Your task to perform on an android device: Go to Android settings Image 0: 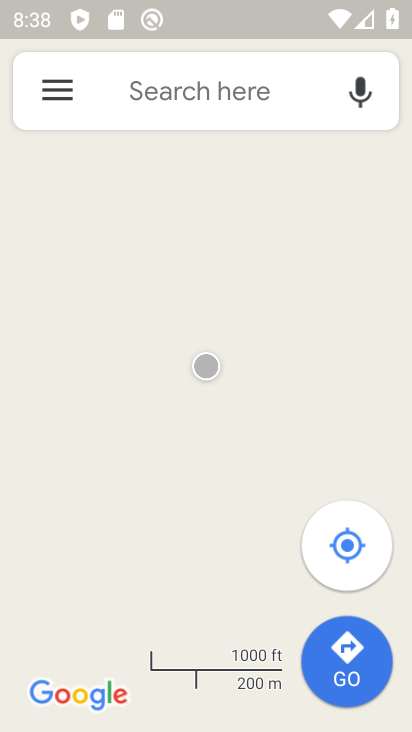
Step 0: press home button
Your task to perform on an android device: Go to Android settings Image 1: 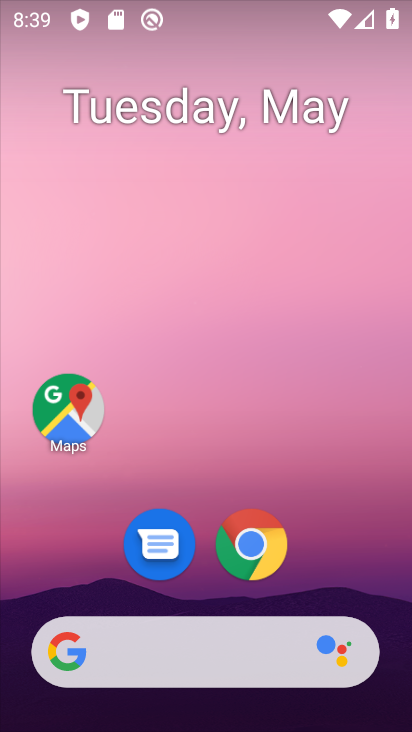
Step 1: drag from (322, 543) to (324, 182)
Your task to perform on an android device: Go to Android settings Image 2: 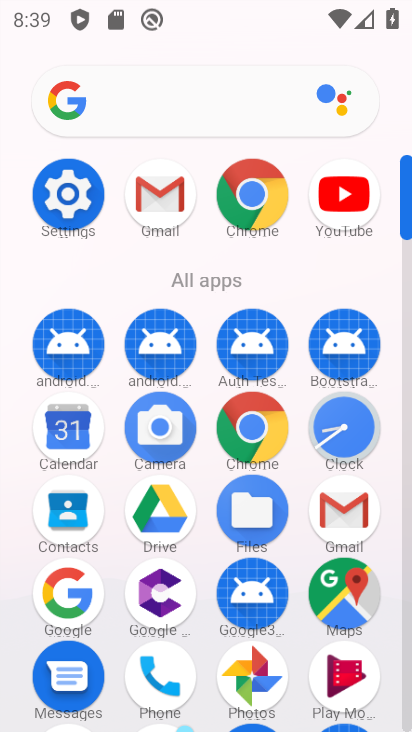
Step 2: click (48, 210)
Your task to perform on an android device: Go to Android settings Image 3: 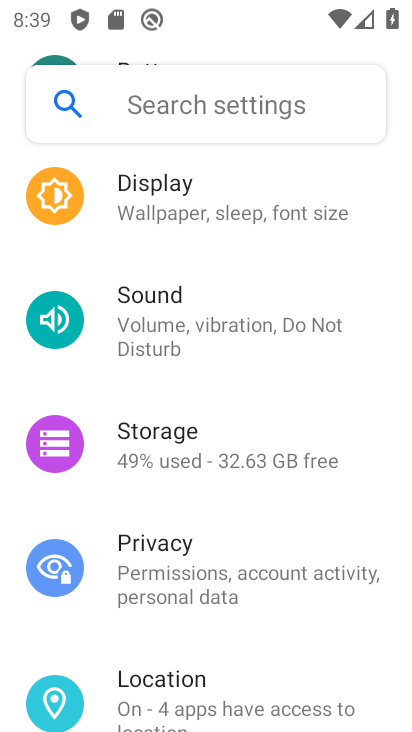
Step 3: drag from (207, 679) to (272, 350)
Your task to perform on an android device: Go to Android settings Image 4: 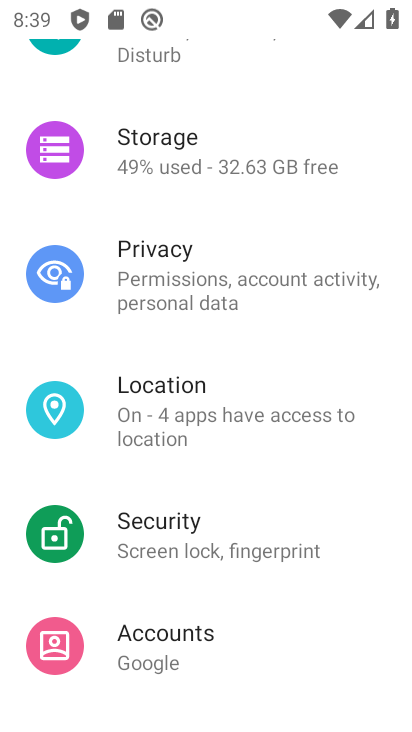
Step 4: drag from (283, 668) to (304, 292)
Your task to perform on an android device: Go to Android settings Image 5: 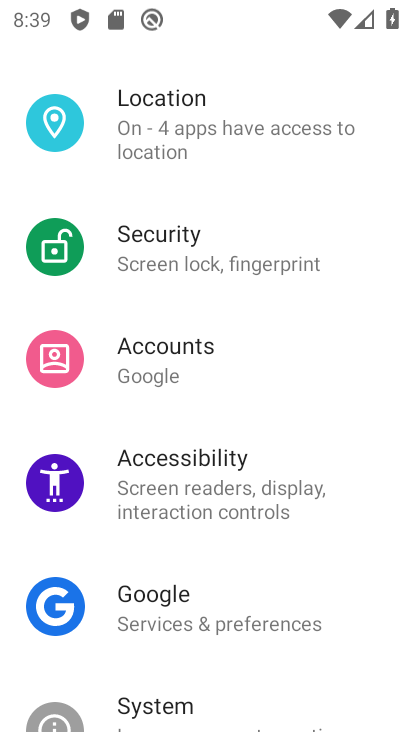
Step 5: drag from (326, 635) to (325, 288)
Your task to perform on an android device: Go to Android settings Image 6: 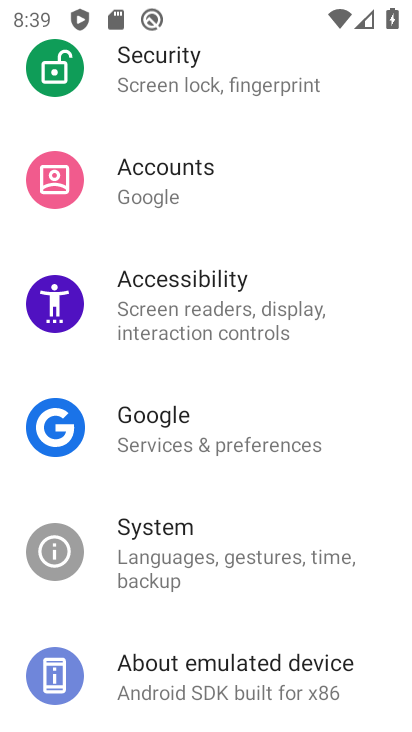
Step 6: drag from (281, 601) to (281, 335)
Your task to perform on an android device: Go to Android settings Image 7: 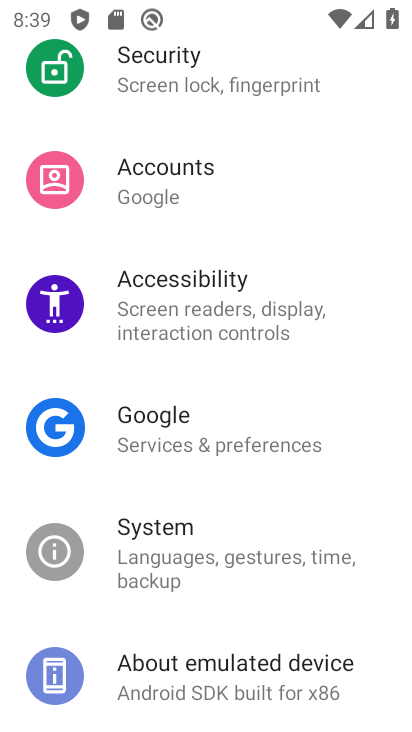
Step 7: click (300, 694)
Your task to perform on an android device: Go to Android settings Image 8: 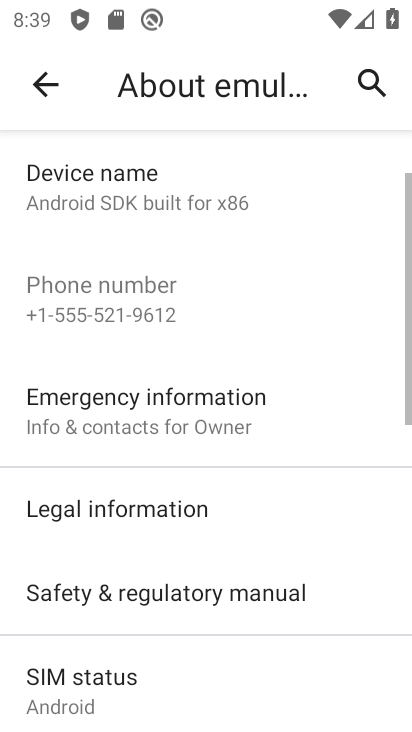
Step 8: drag from (214, 667) to (208, 270)
Your task to perform on an android device: Go to Android settings Image 9: 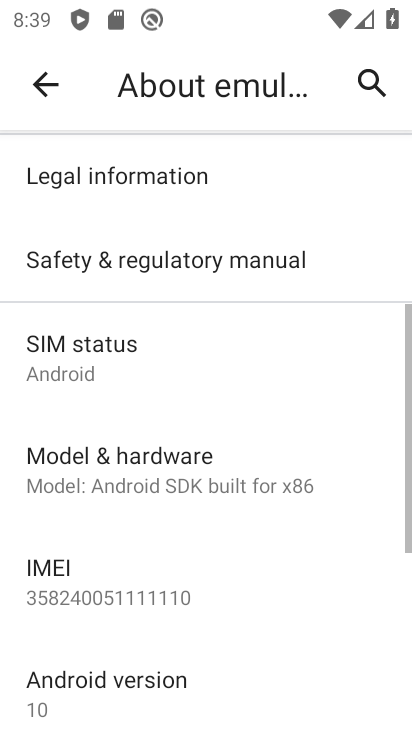
Step 9: drag from (240, 651) to (244, 396)
Your task to perform on an android device: Go to Android settings Image 10: 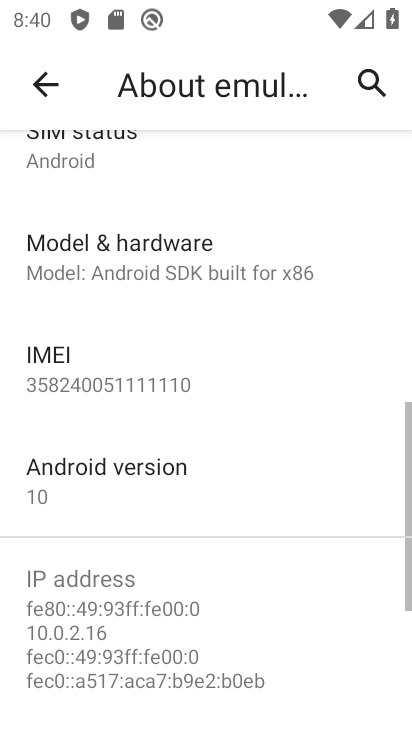
Step 10: click (172, 491)
Your task to perform on an android device: Go to Android settings Image 11: 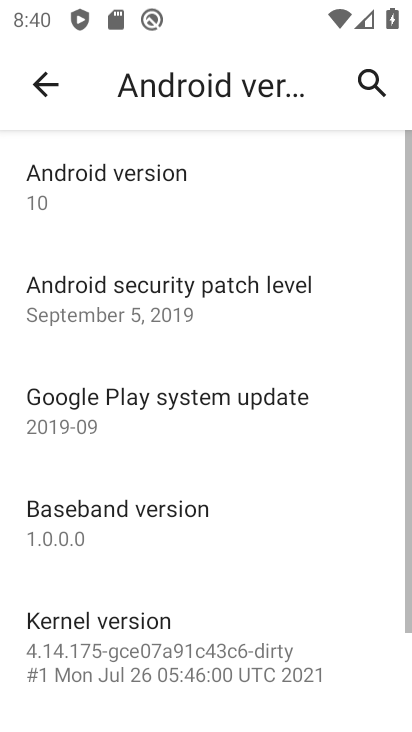
Step 11: task complete